Your task to perform on an android device: Open maps Image 0: 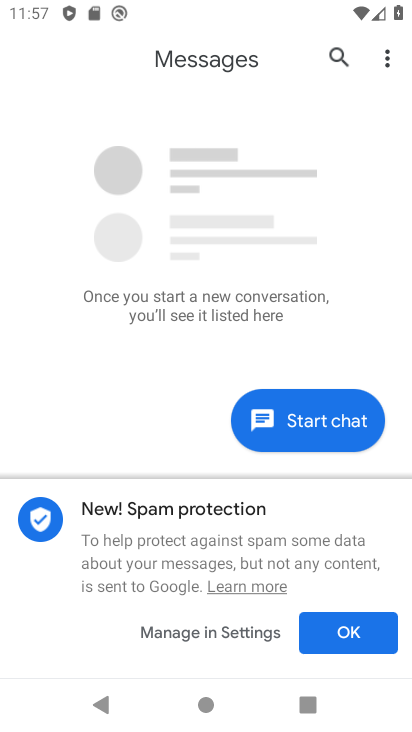
Step 0: press home button
Your task to perform on an android device: Open maps Image 1: 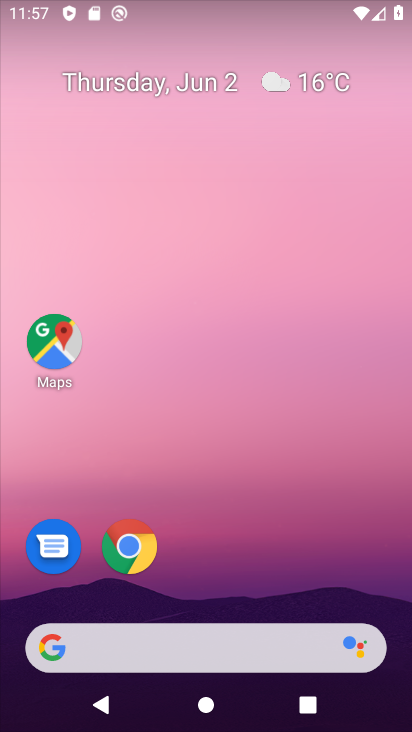
Step 1: click (48, 347)
Your task to perform on an android device: Open maps Image 2: 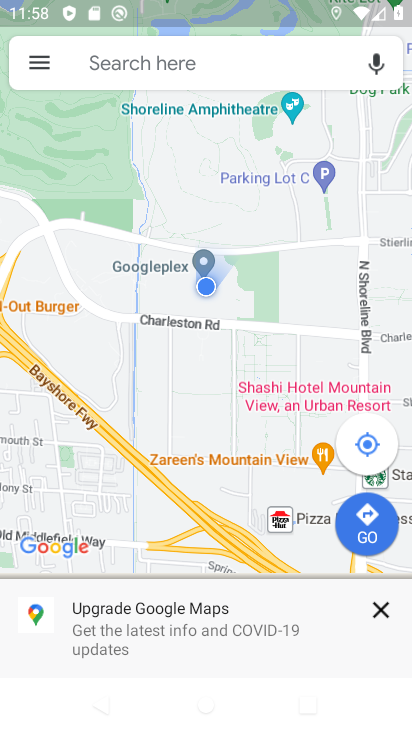
Step 2: task complete